Your task to perform on an android device: What's on my calendar today? Image 0: 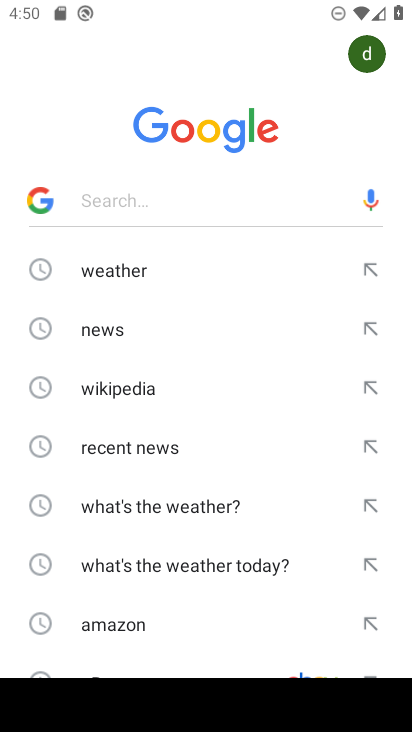
Step 0: press home button
Your task to perform on an android device: What's on my calendar today? Image 1: 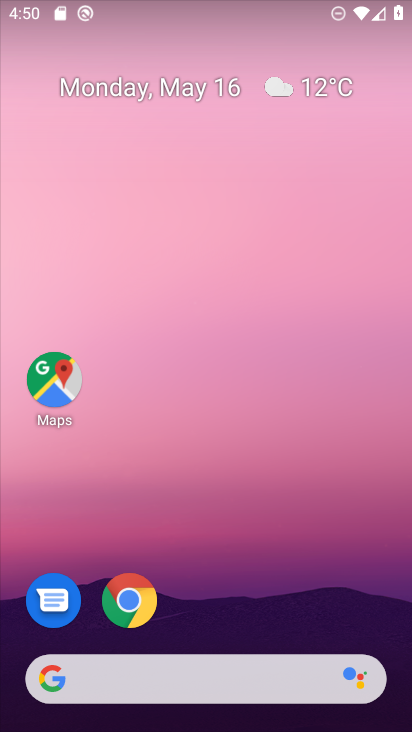
Step 1: drag from (298, 525) to (334, 68)
Your task to perform on an android device: What's on my calendar today? Image 2: 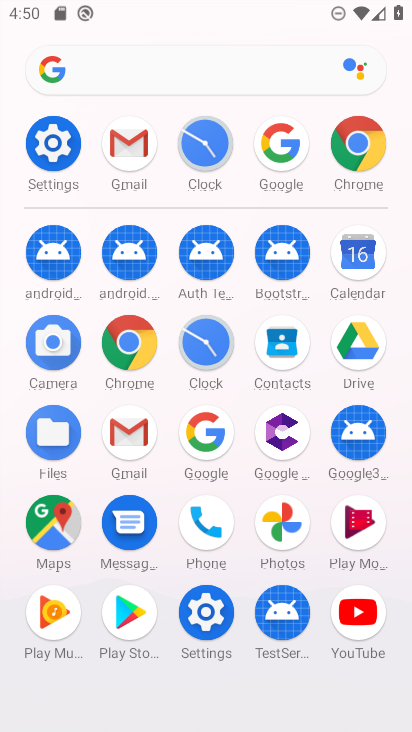
Step 2: drag from (213, 562) to (255, 593)
Your task to perform on an android device: What's on my calendar today? Image 3: 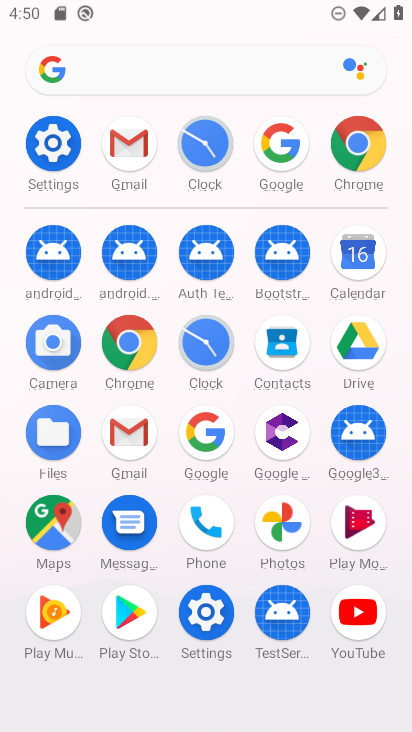
Step 3: click (359, 282)
Your task to perform on an android device: What's on my calendar today? Image 4: 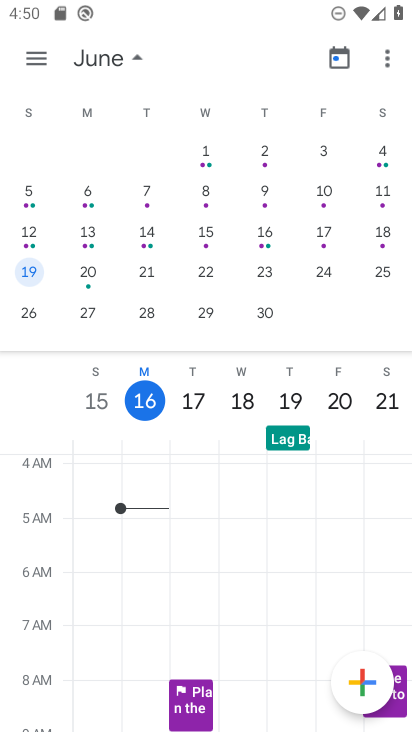
Step 4: drag from (42, 216) to (385, 186)
Your task to perform on an android device: What's on my calendar today? Image 5: 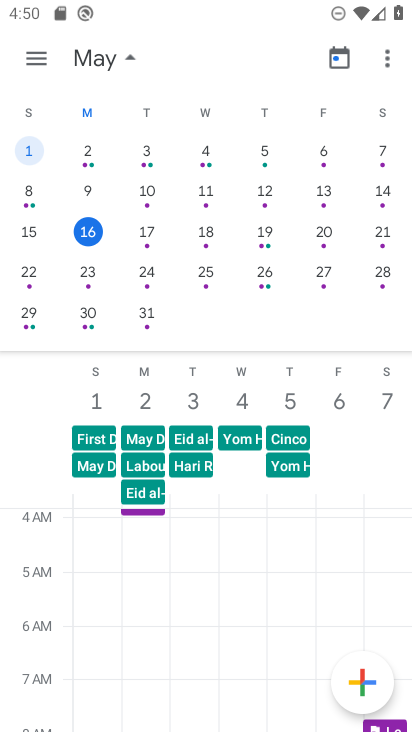
Step 5: click (86, 234)
Your task to perform on an android device: What's on my calendar today? Image 6: 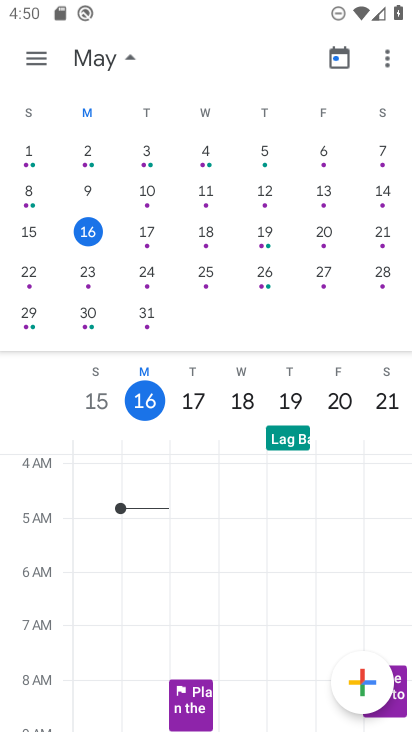
Step 6: task complete